Your task to perform on an android device: find which apps use the phone's location Image 0: 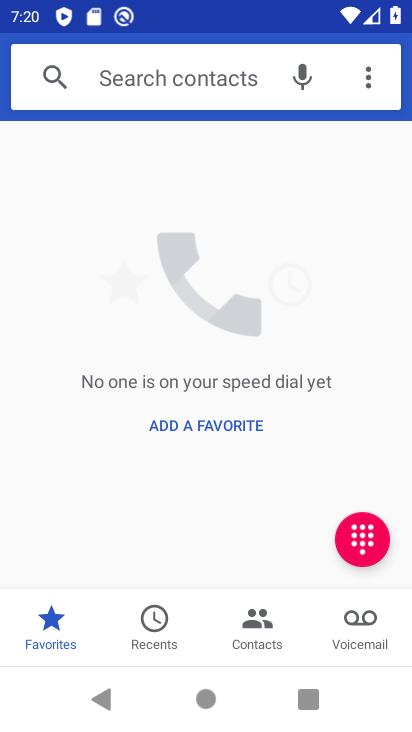
Step 0: press home button
Your task to perform on an android device: find which apps use the phone's location Image 1: 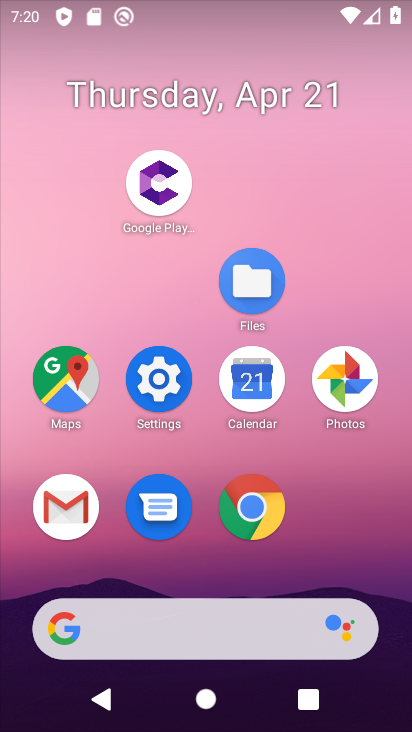
Step 1: click (156, 383)
Your task to perform on an android device: find which apps use the phone's location Image 2: 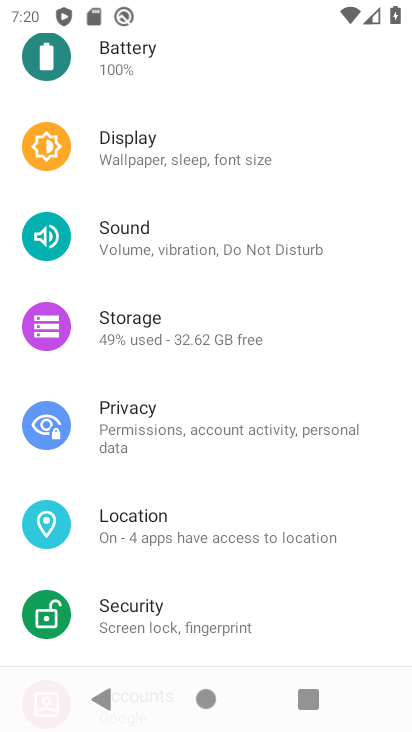
Step 2: click (117, 513)
Your task to perform on an android device: find which apps use the phone's location Image 3: 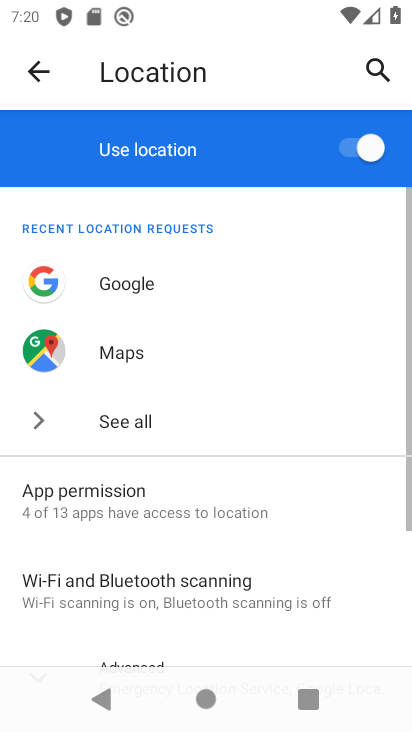
Step 3: click (107, 422)
Your task to perform on an android device: find which apps use the phone's location Image 4: 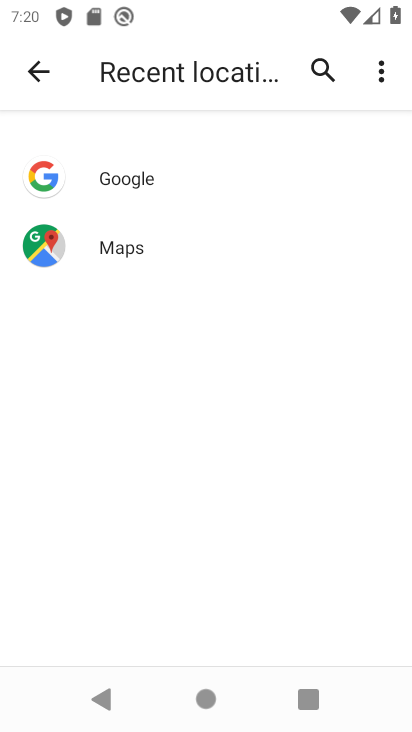
Step 4: task complete